Your task to perform on an android device: uninstall "Booking.com: Hotels and more" Image 0: 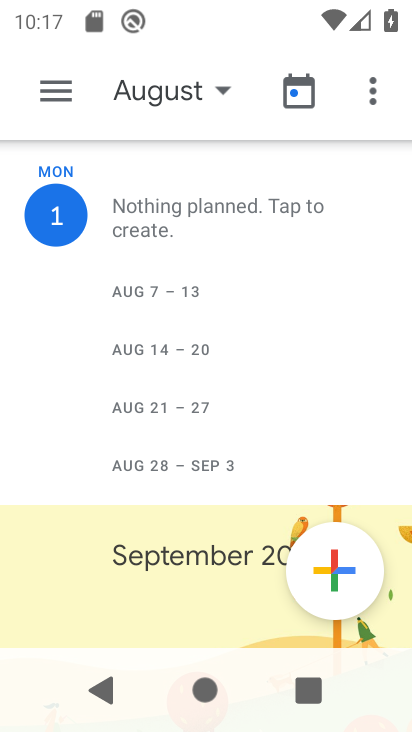
Step 0: press home button
Your task to perform on an android device: uninstall "Booking.com: Hotels and more" Image 1: 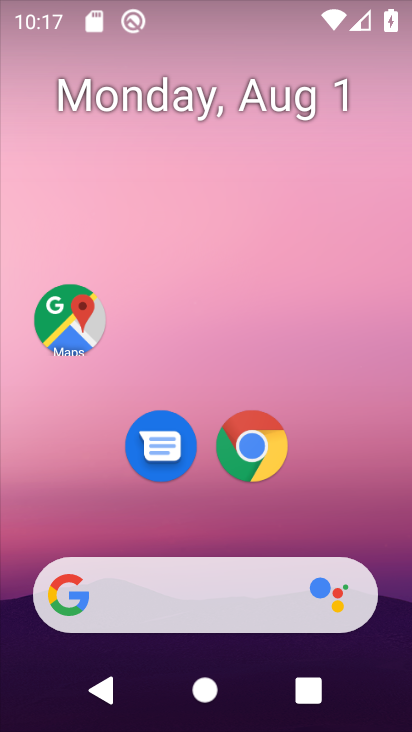
Step 1: click (207, 131)
Your task to perform on an android device: uninstall "Booking.com: Hotels and more" Image 2: 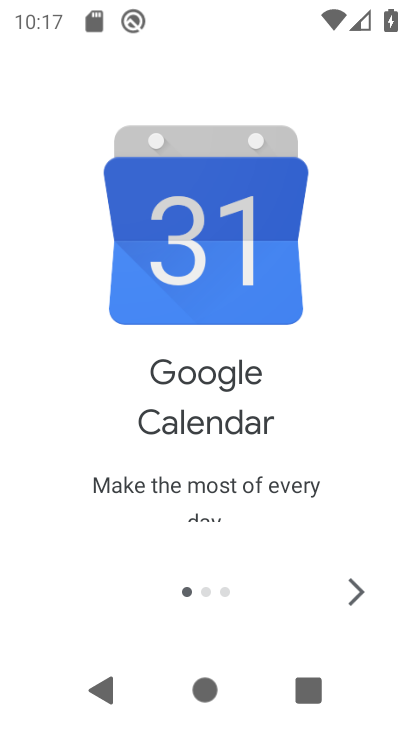
Step 2: press back button
Your task to perform on an android device: uninstall "Booking.com: Hotels and more" Image 3: 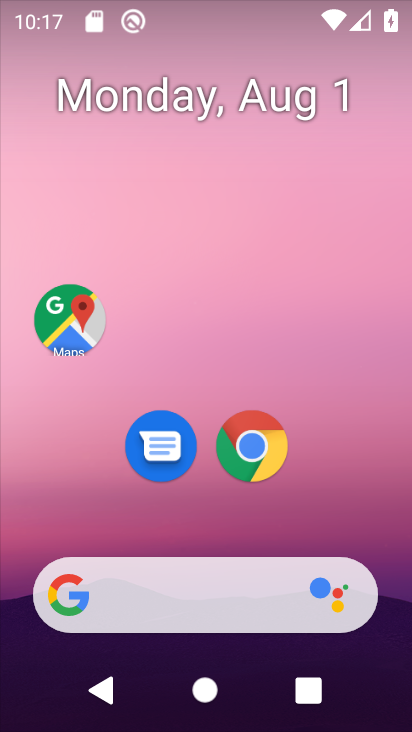
Step 3: drag from (190, 495) to (245, 33)
Your task to perform on an android device: uninstall "Booking.com: Hotels and more" Image 4: 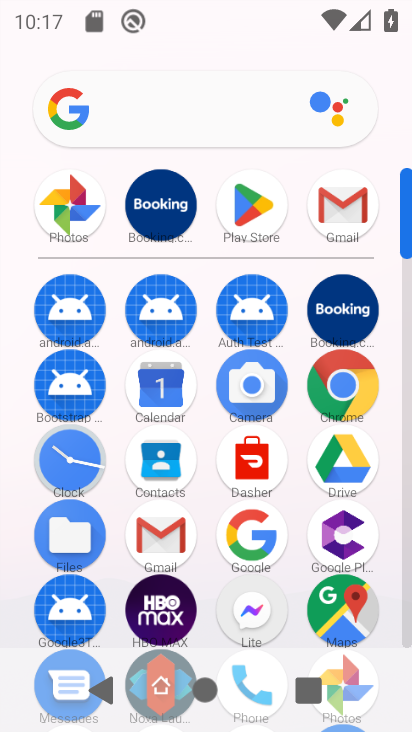
Step 4: click (246, 163)
Your task to perform on an android device: uninstall "Booking.com: Hotels and more" Image 5: 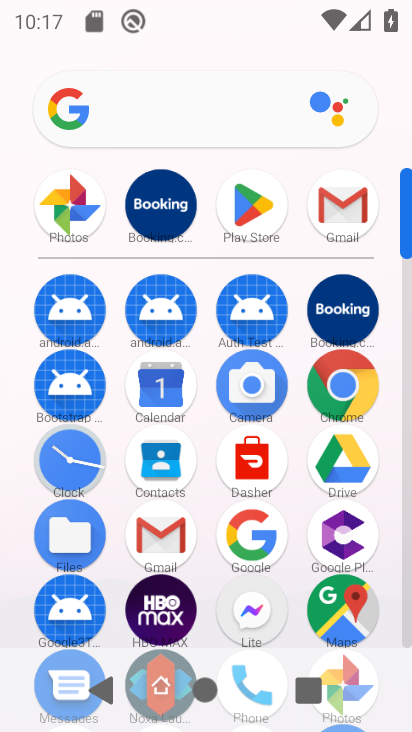
Step 5: click (252, 186)
Your task to perform on an android device: uninstall "Booking.com: Hotels and more" Image 6: 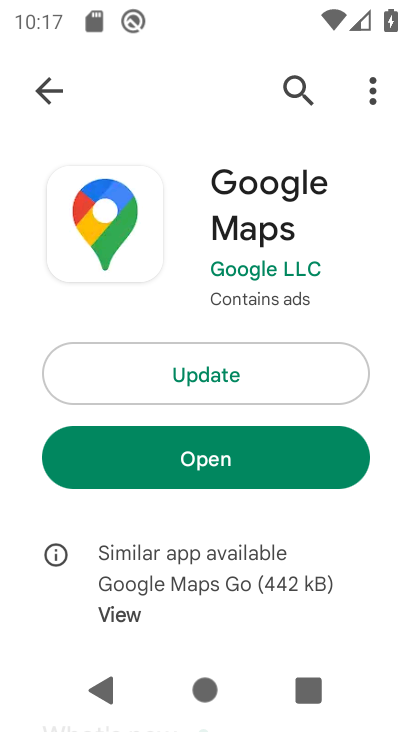
Step 6: click (288, 83)
Your task to perform on an android device: uninstall "Booking.com: Hotels and more" Image 7: 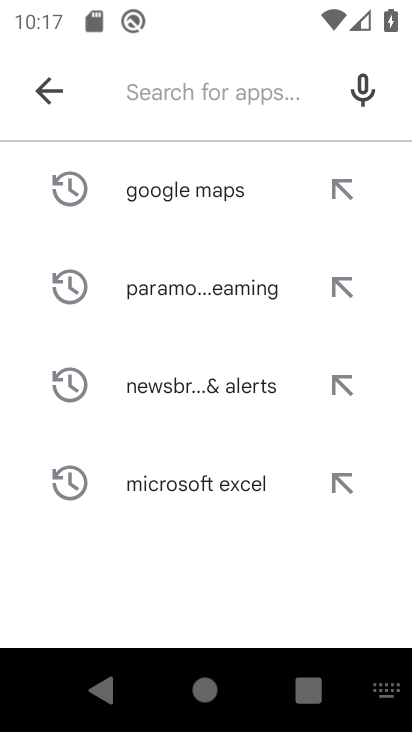
Step 7: type "Booking.com: Hotels and more"
Your task to perform on an android device: uninstall "Booking.com: Hotels and more" Image 8: 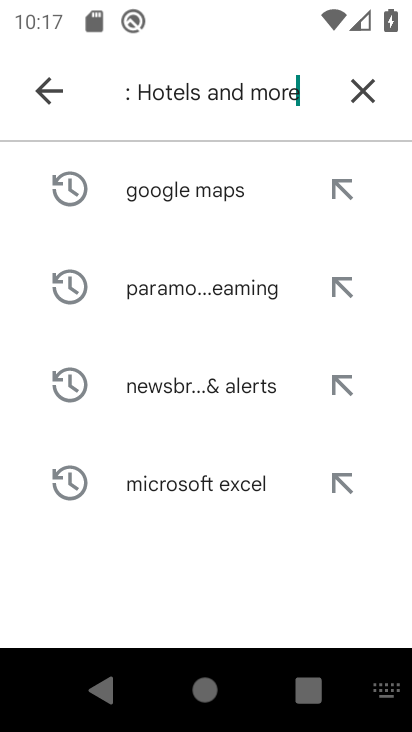
Step 8: type ""
Your task to perform on an android device: uninstall "Booking.com: Hotels and more" Image 9: 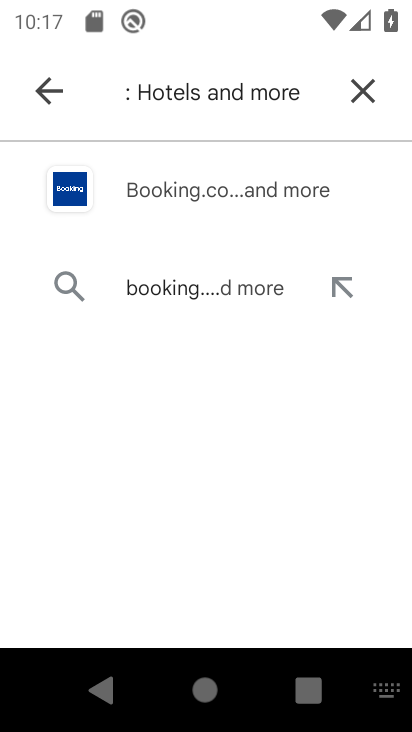
Step 9: click (197, 203)
Your task to perform on an android device: uninstall "Booking.com: Hotels and more" Image 10: 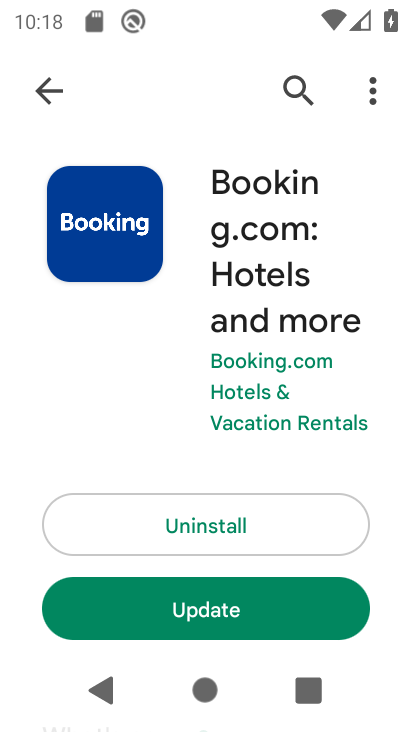
Step 10: click (215, 524)
Your task to perform on an android device: uninstall "Booking.com: Hotels and more" Image 11: 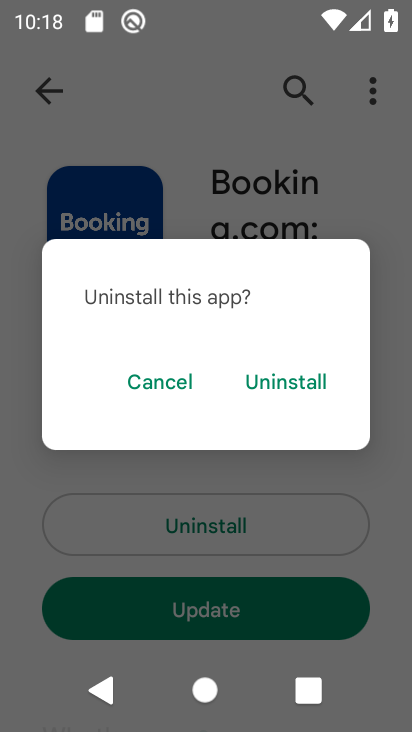
Step 11: click (296, 372)
Your task to perform on an android device: uninstall "Booking.com: Hotels and more" Image 12: 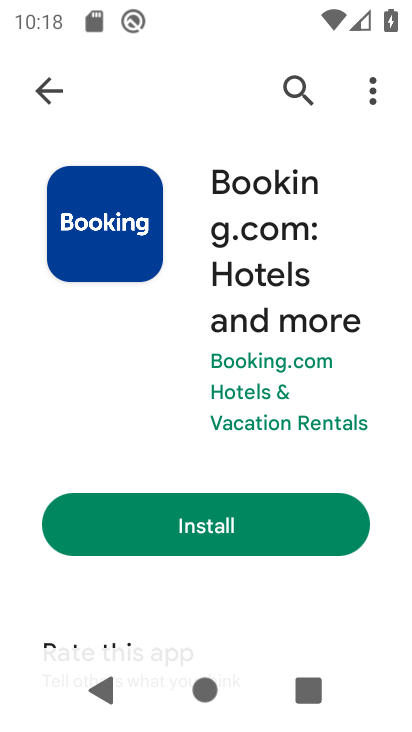
Step 12: task complete